Your task to perform on an android device: Open Android settings Image 0: 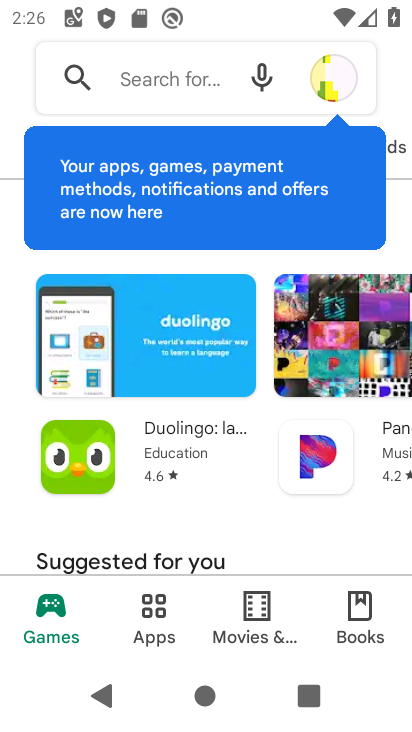
Step 0: press home button
Your task to perform on an android device: Open Android settings Image 1: 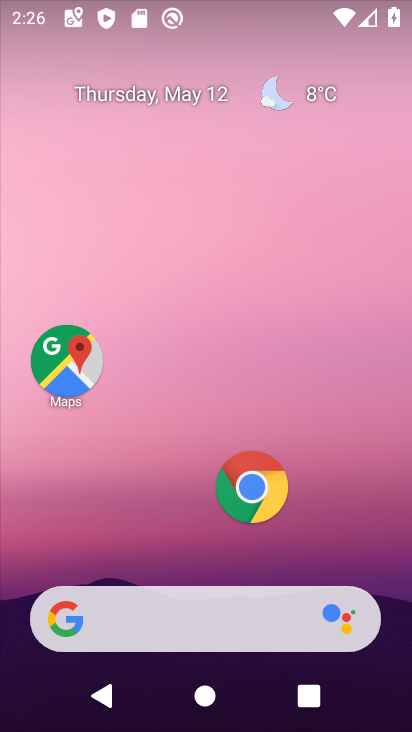
Step 1: drag from (190, 436) to (219, 81)
Your task to perform on an android device: Open Android settings Image 2: 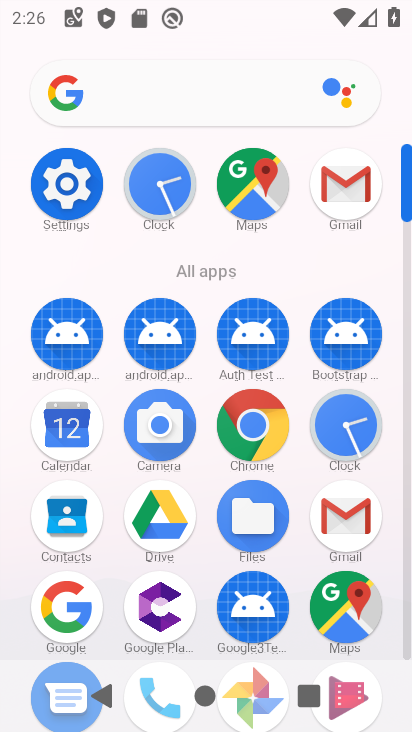
Step 2: click (75, 189)
Your task to perform on an android device: Open Android settings Image 3: 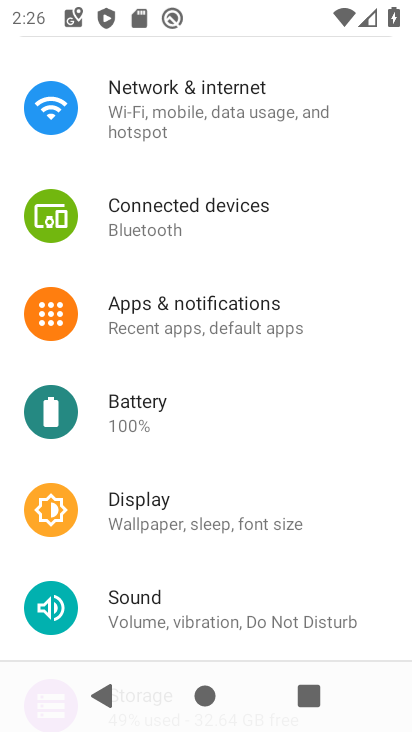
Step 3: task complete